Your task to perform on an android device: uninstall "NewsBreak: Local News & Alerts" Image 0: 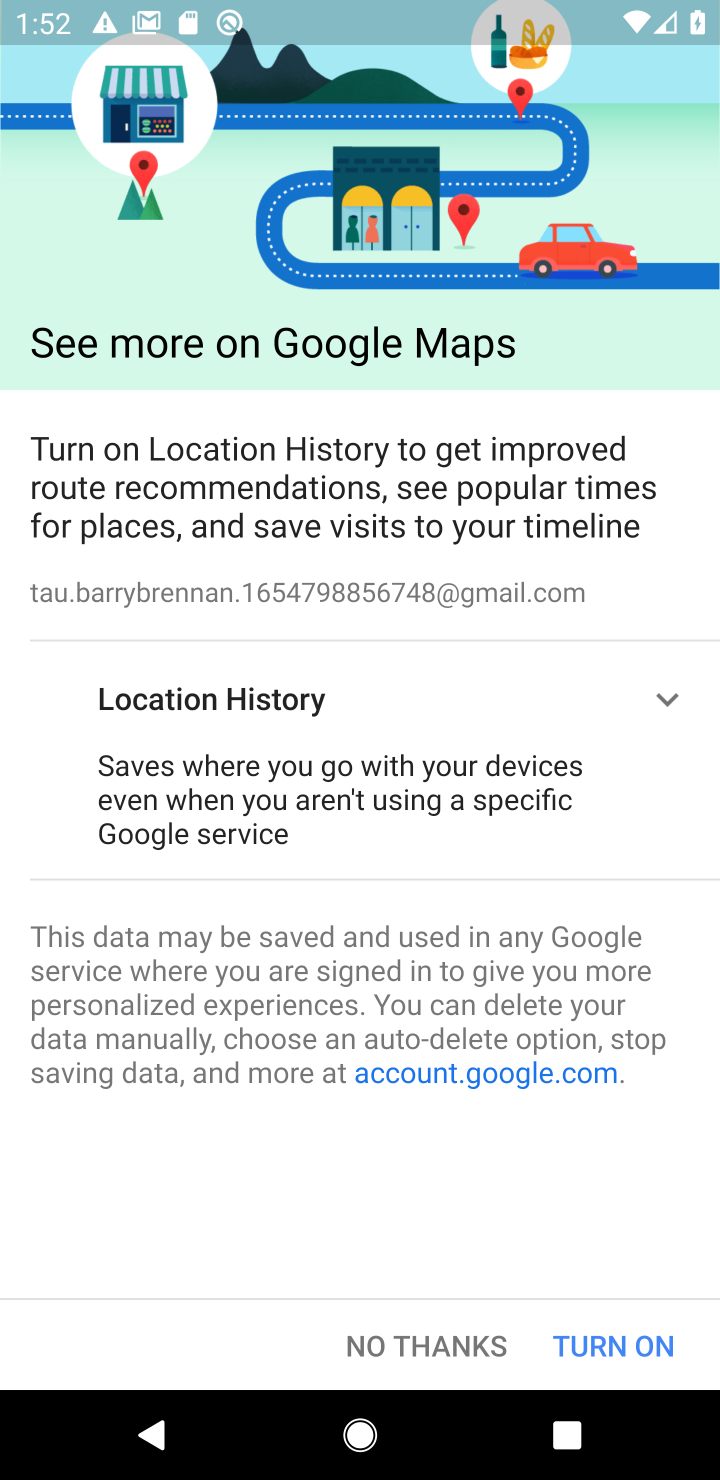
Step 0: press home button
Your task to perform on an android device: uninstall "NewsBreak: Local News & Alerts" Image 1: 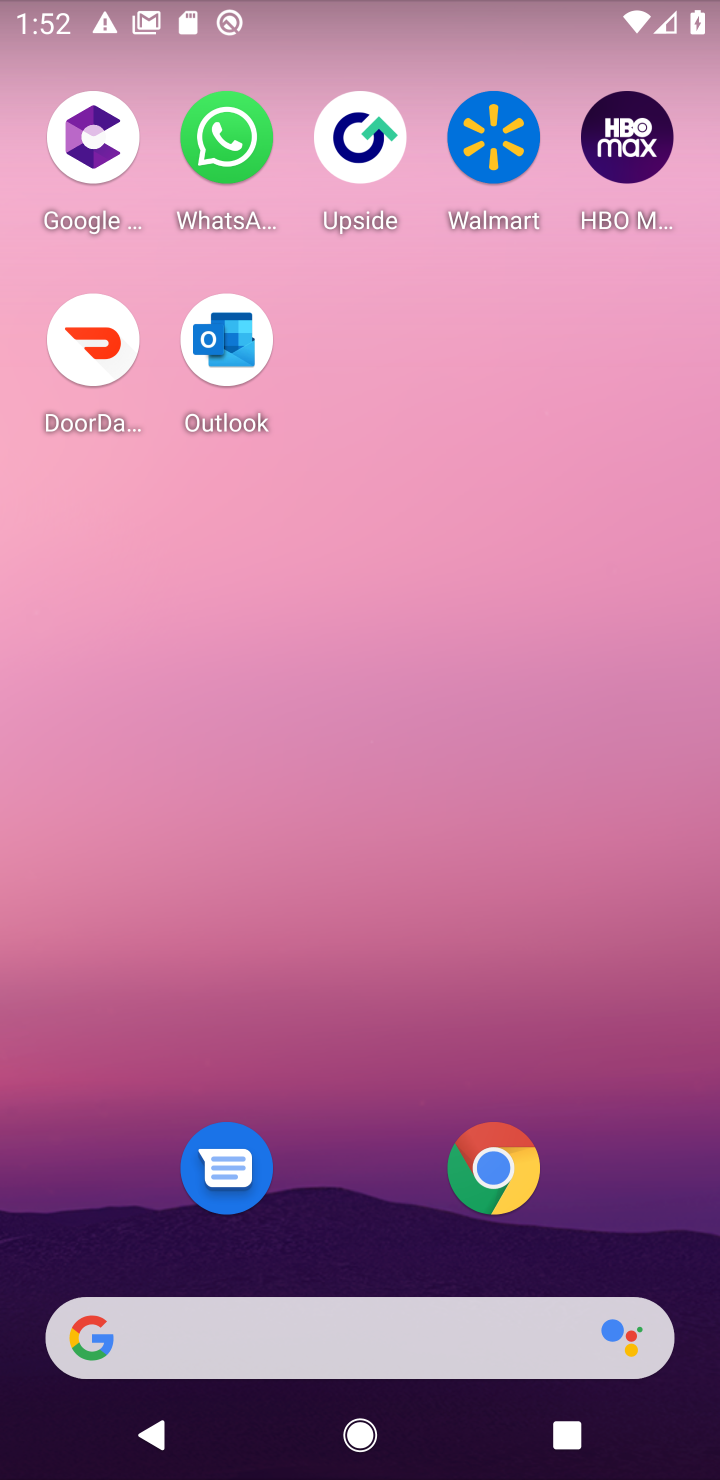
Step 1: drag from (298, 1310) to (460, 111)
Your task to perform on an android device: uninstall "NewsBreak: Local News & Alerts" Image 2: 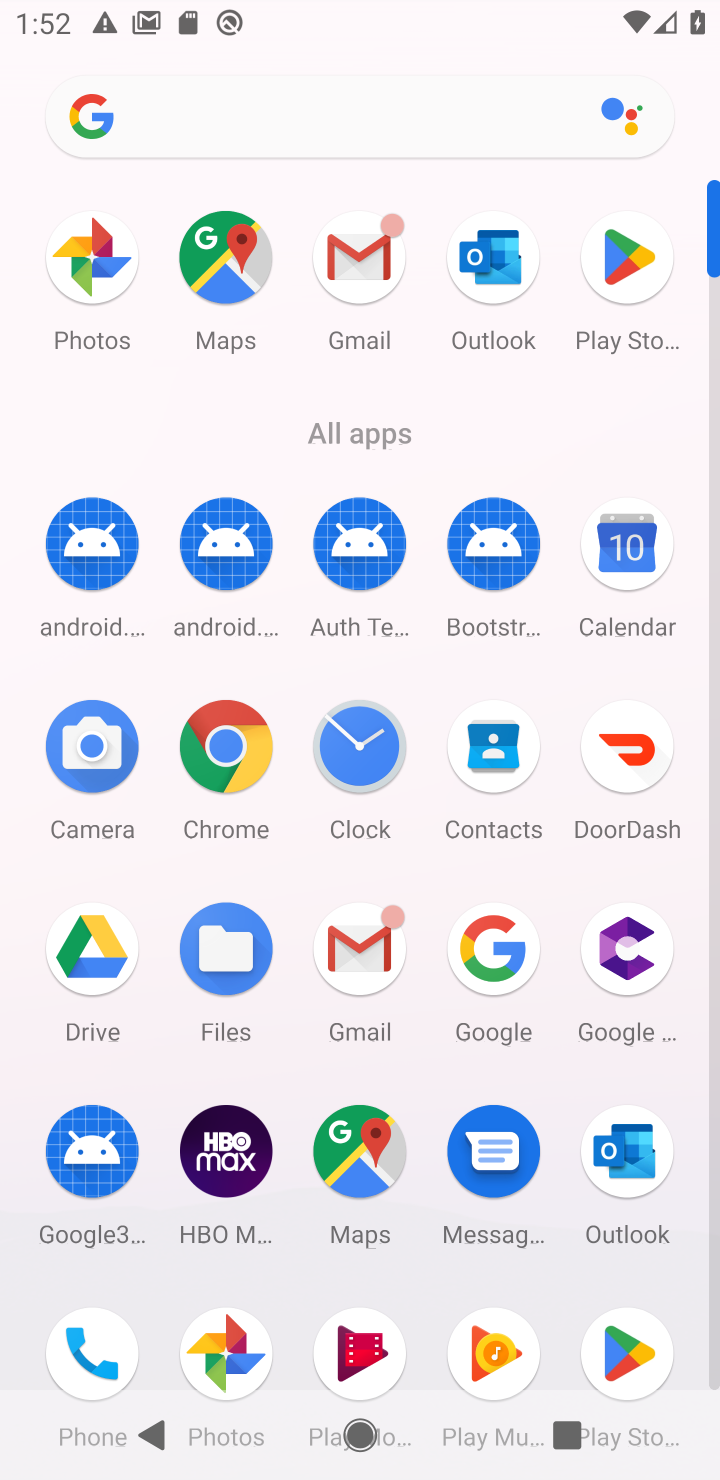
Step 2: click (630, 279)
Your task to perform on an android device: uninstall "NewsBreak: Local News & Alerts" Image 3: 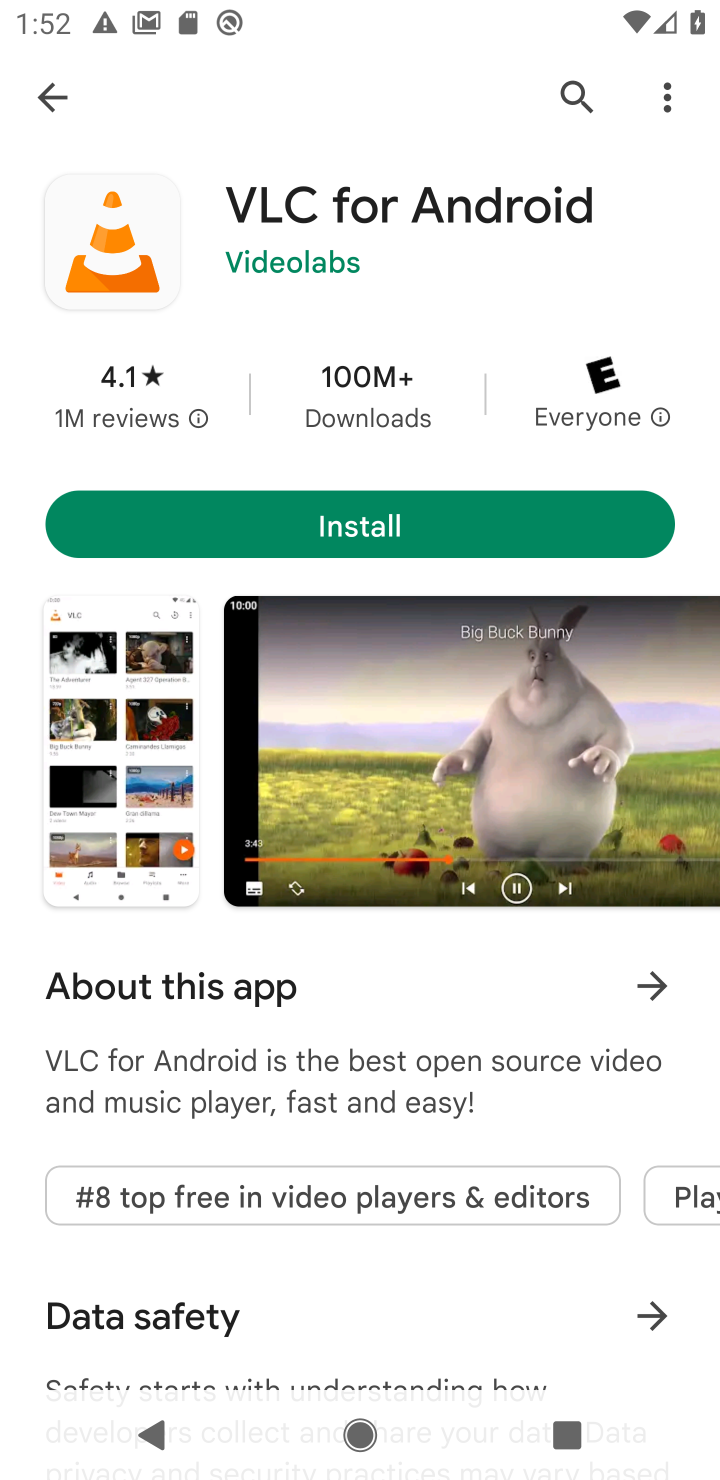
Step 3: press back button
Your task to perform on an android device: uninstall "NewsBreak: Local News & Alerts" Image 4: 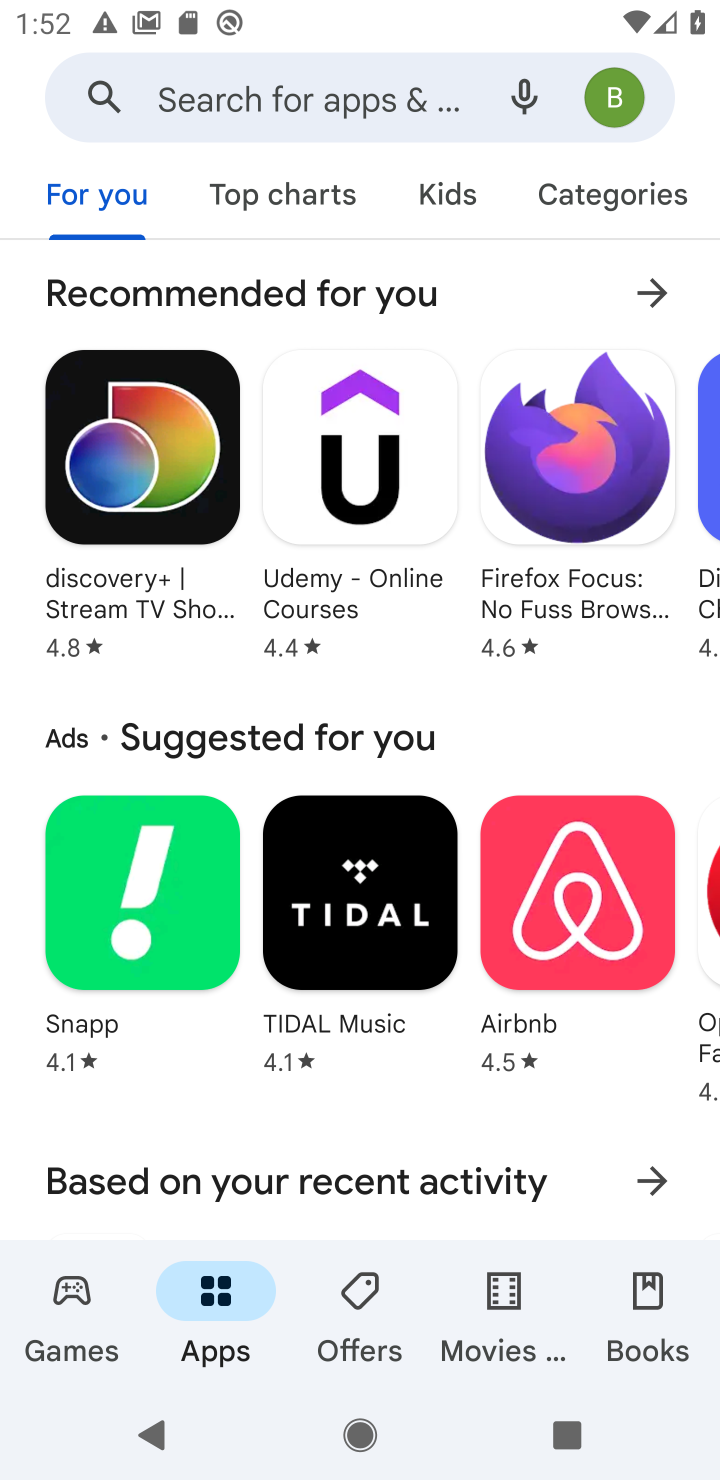
Step 4: click (343, 109)
Your task to perform on an android device: uninstall "NewsBreak: Local News & Alerts" Image 5: 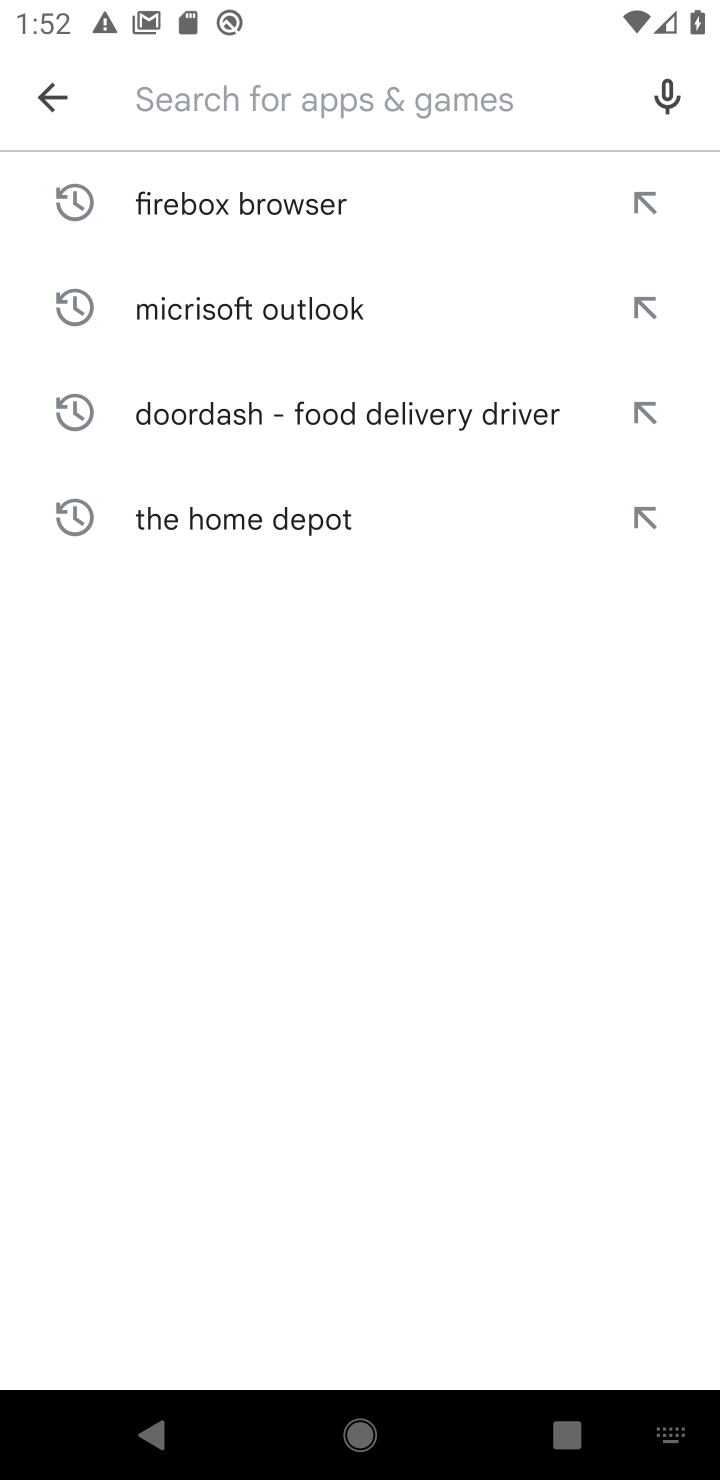
Step 5: type "NewsBreak: Local News & Alerts"
Your task to perform on an android device: uninstall "NewsBreak: Local News & Alerts" Image 6: 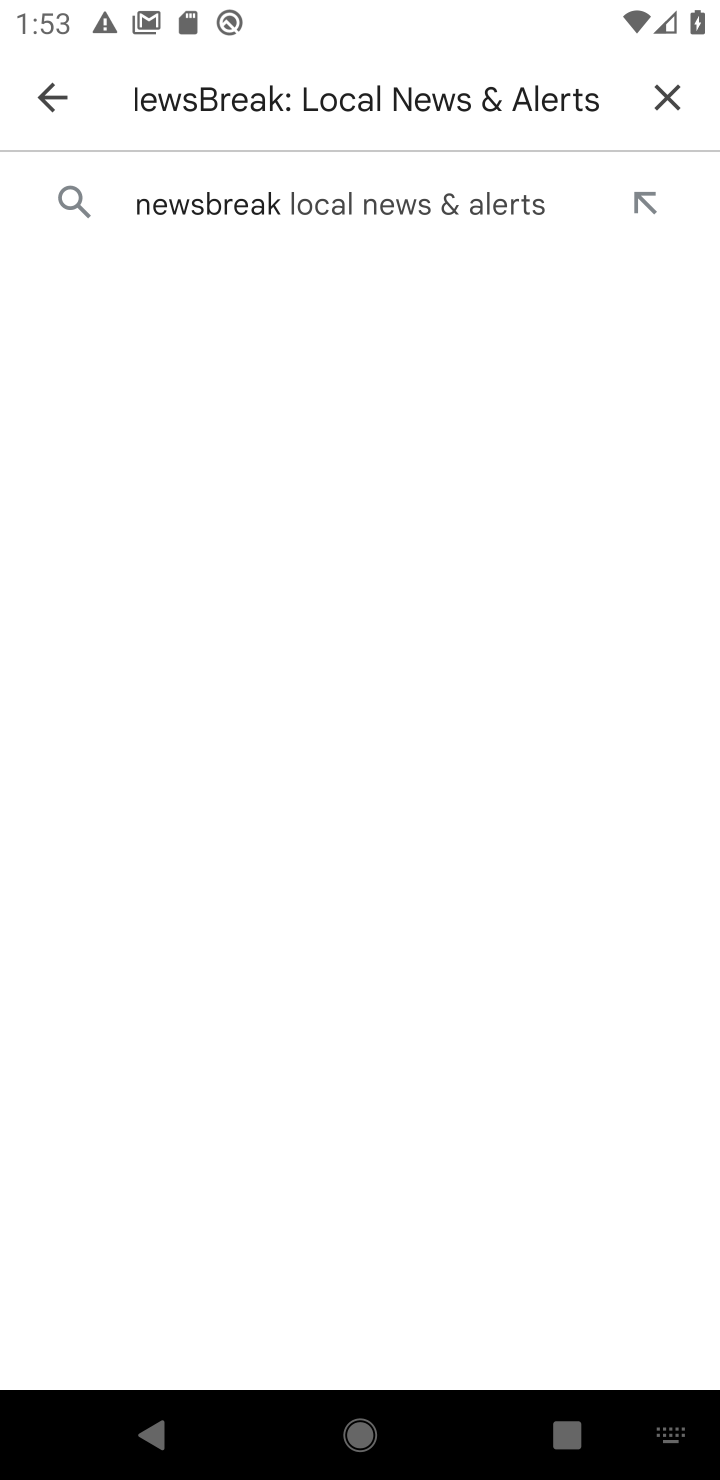
Step 6: click (412, 219)
Your task to perform on an android device: uninstall "NewsBreak: Local News & Alerts" Image 7: 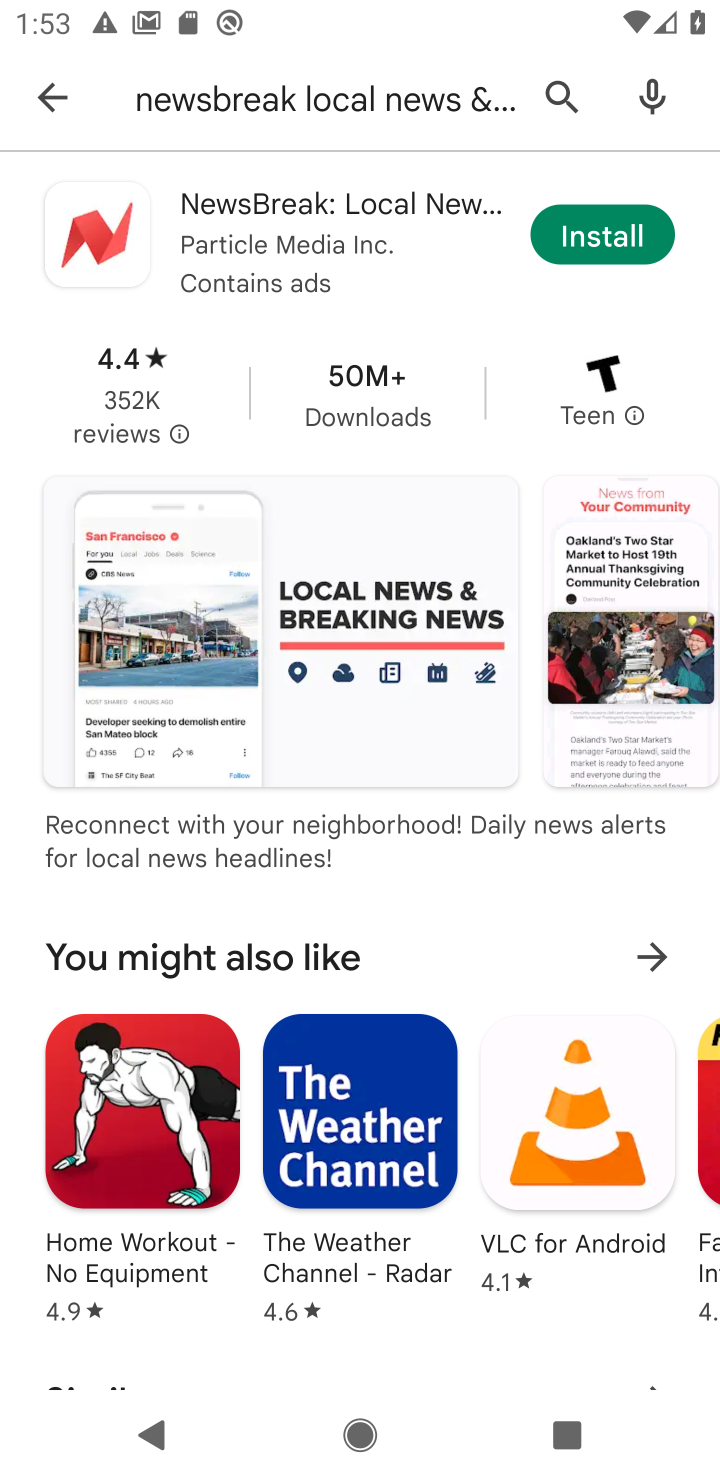
Step 7: task complete